Your task to perform on an android device: check android version Image 0: 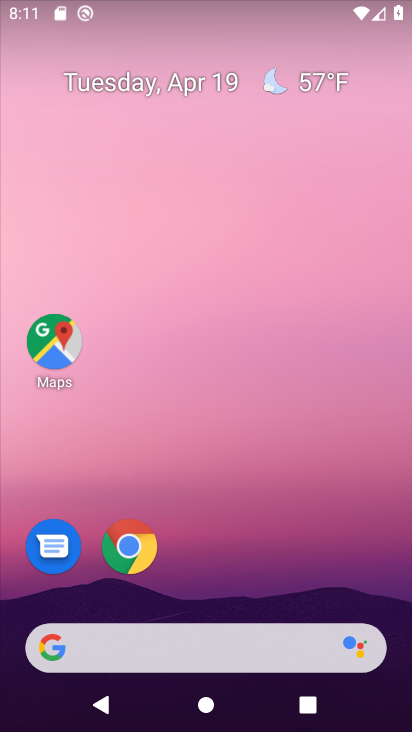
Step 0: drag from (205, 569) to (34, 28)
Your task to perform on an android device: check android version Image 1: 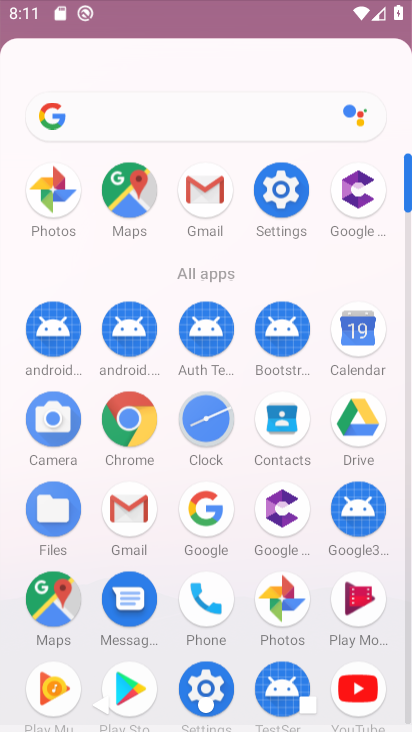
Step 1: click (291, 192)
Your task to perform on an android device: check android version Image 2: 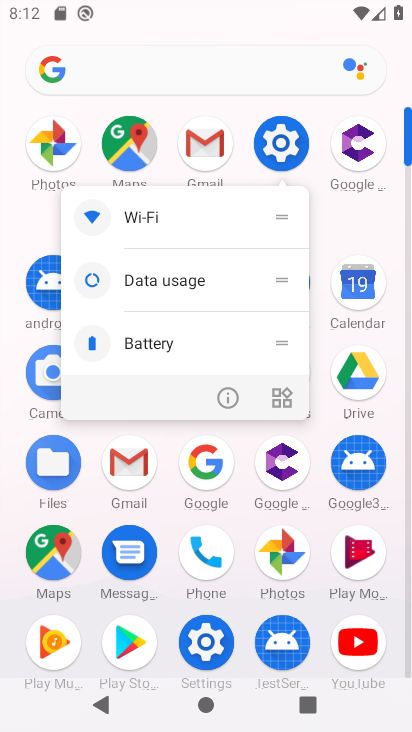
Step 2: click (279, 143)
Your task to perform on an android device: check android version Image 3: 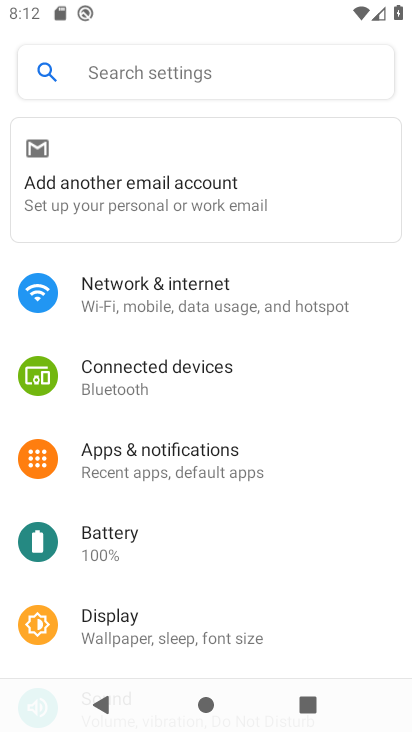
Step 3: drag from (165, 572) to (254, 98)
Your task to perform on an android device: check android version Image 4: 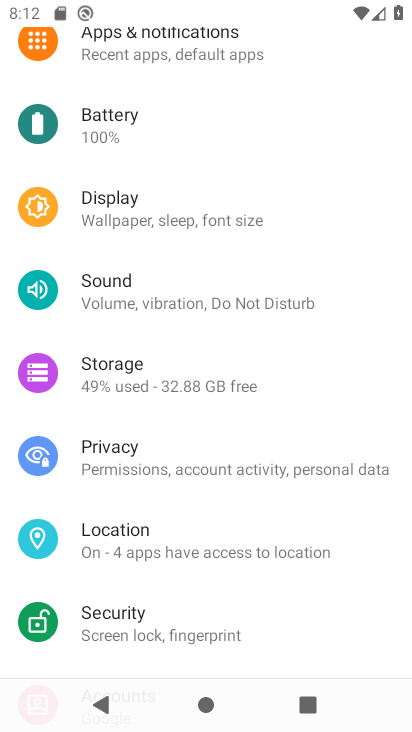
Step 4: drag from (194, 553) to (272, 33)
Your task to perform on an android device: check android version Image 5: 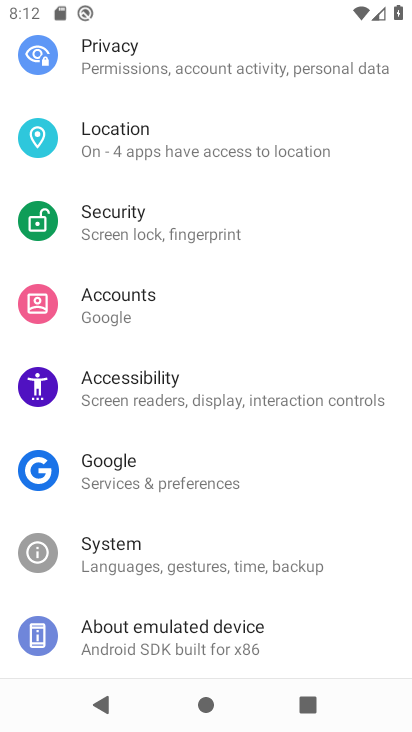
Step 5: drag from (177, 627) to (203, 415)
Your task to perform on an android device: check android version Image 6: 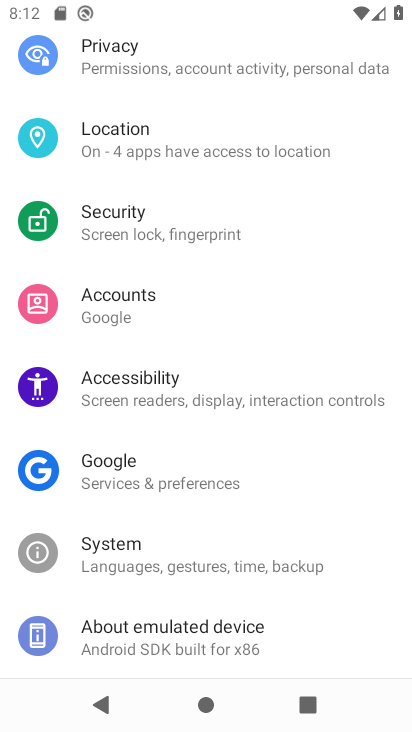
Step 6: click (150, 650)
Your task to perform on an android device: check android version Image 7: 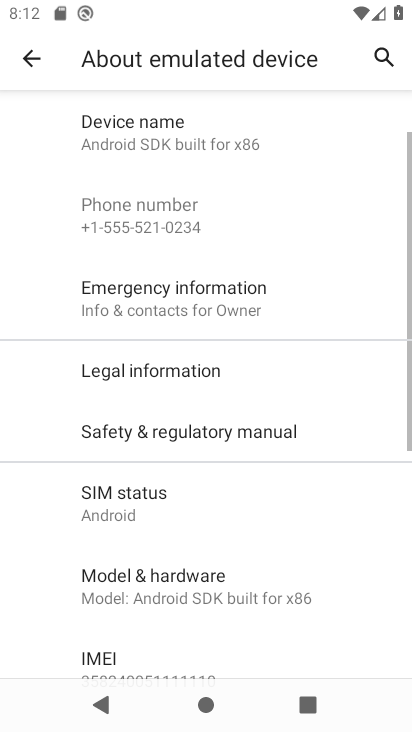
Step 7: drag from (162, 489) to (243, 27)
Your task to perform on an android device: check android version Image 8: 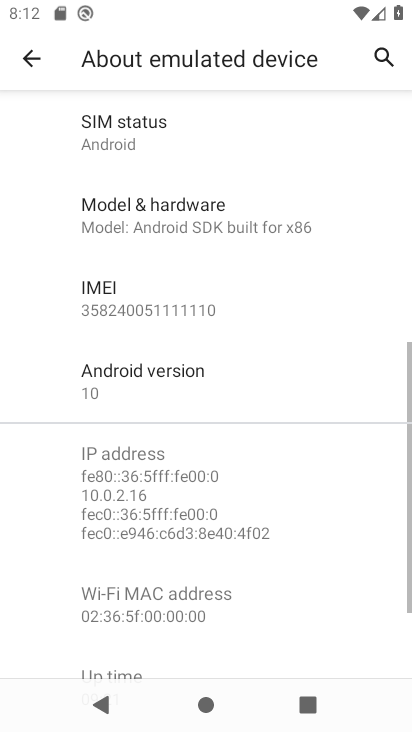
Step 8: click (160, 397)
Your task to perform on an android device: check android version Image 9: 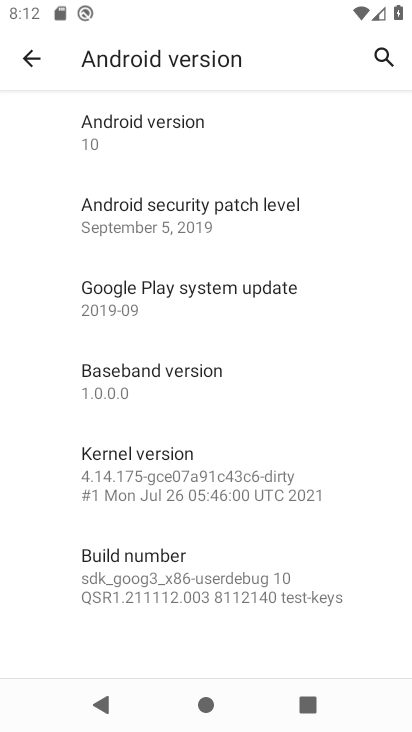
Step 9: task complete